Your task to perform on an android device: Open Android settings Image 0: 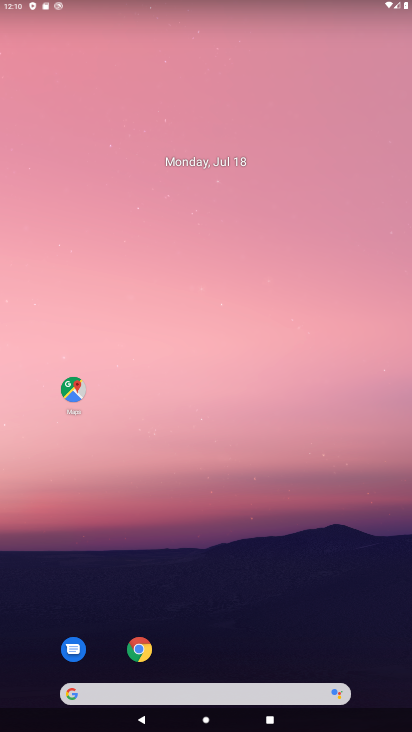
Step 0: drag from (56, 686) to (233, 257)
Your task to perform on an android device: Open Android settings Image 1: 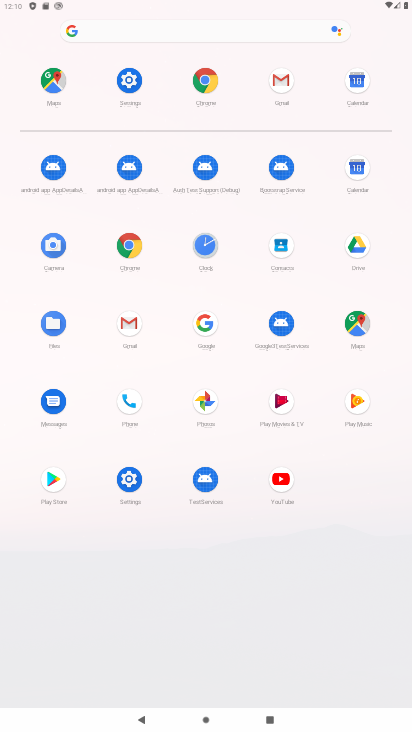
Step 1: click (123, 478)
Your task to perform on an android device: Open Android settings Image 2: 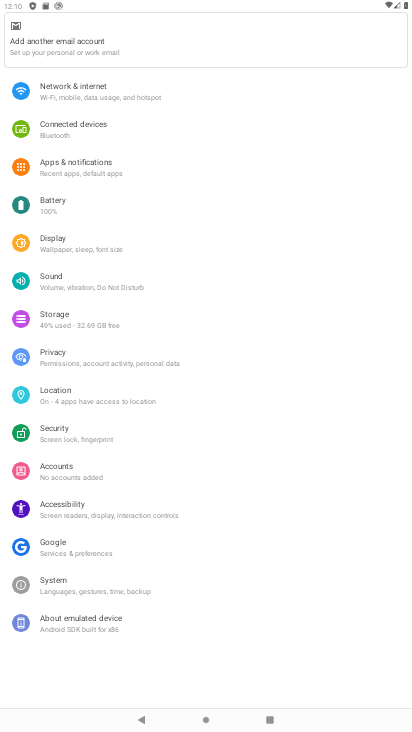
Step 2: click (72, 622)
Your task to perform on an android device: Open Android settings Image 3: 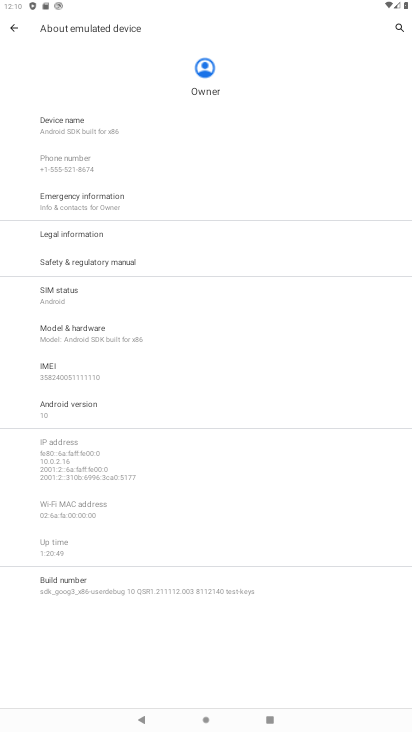
Step 3: click (100, 407)
Your task to perform on an android device: Open Android settings Image 4: 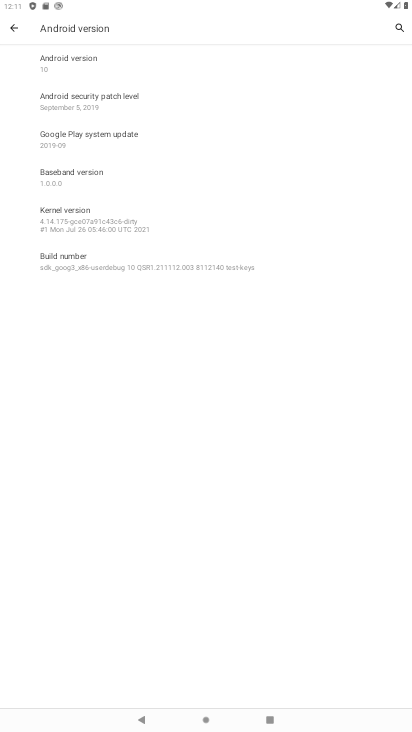
Step 4: task complete